Your task to perform on an android device: install app "Truecaller" Image 0: 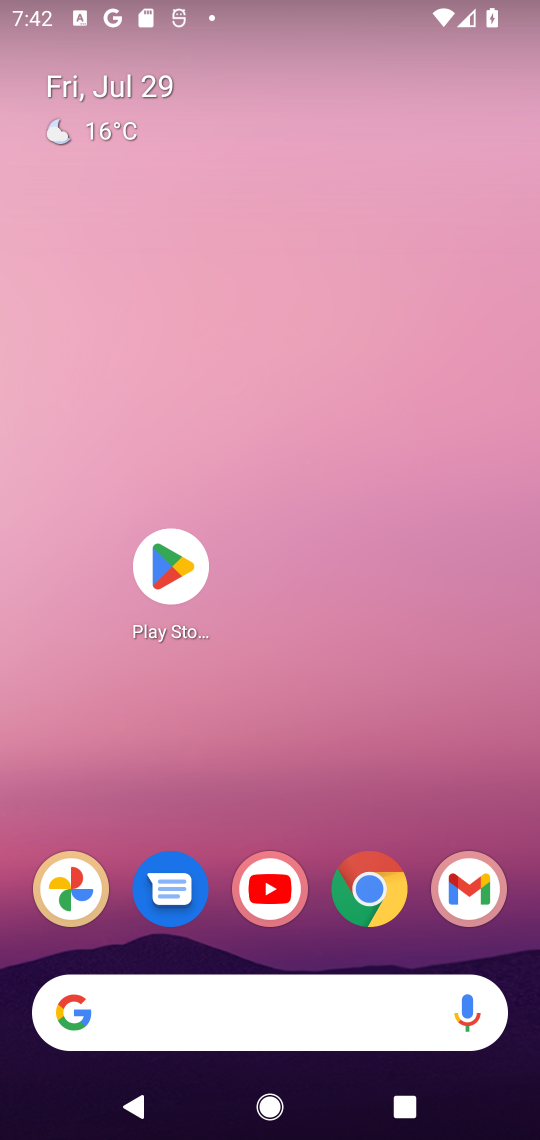
Step 0: press home button
Your task to perform on an android device: install app "Truecaller" Image 1: 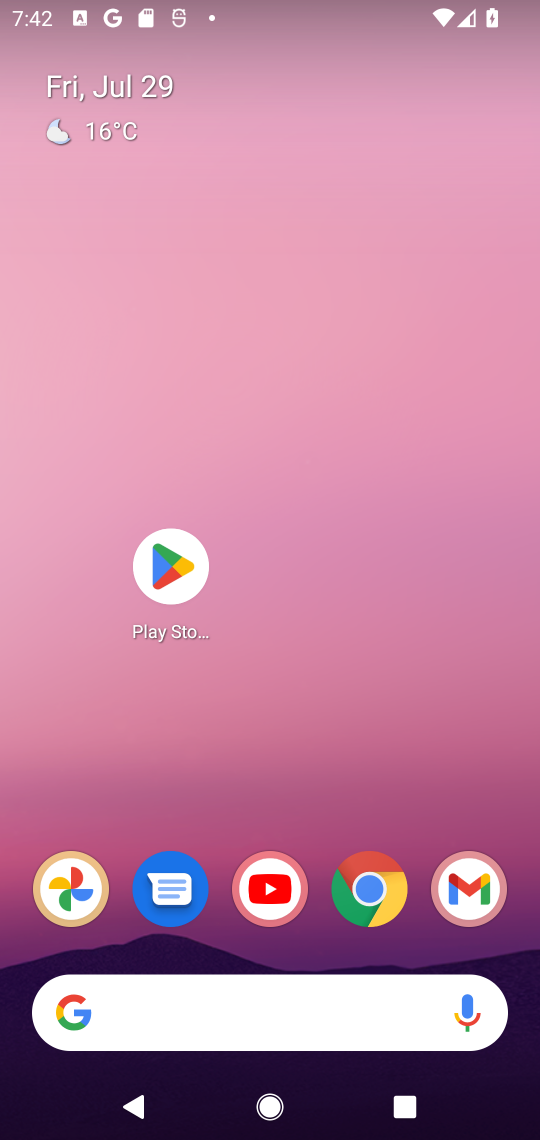
Step 1: click (178, 573)
Your task to perform on an android device: install app "Truecaller" Image 2: 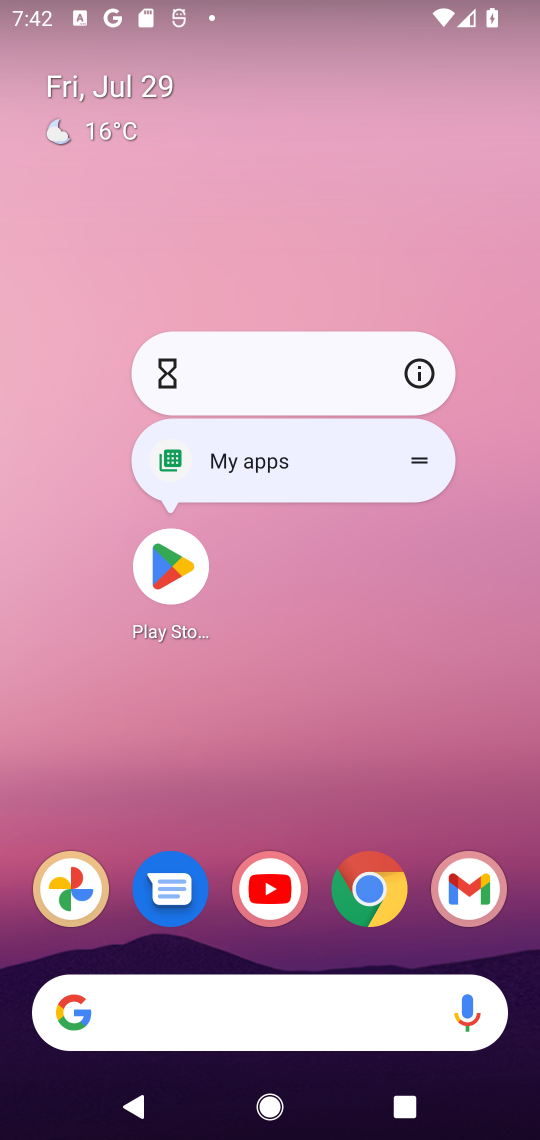
Step 2: click (178, 572)
Your task to perform on an android device: install app "Truecaller" Image 3: 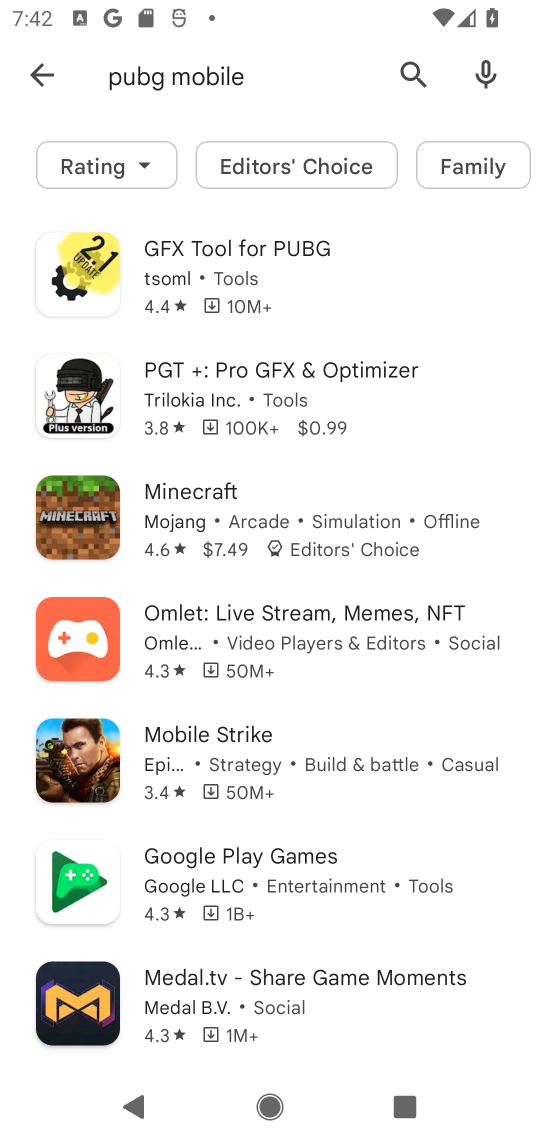
Step 3: click (401, 60)
Your task to perform on an android device: install app "Truecaller" Image 4: 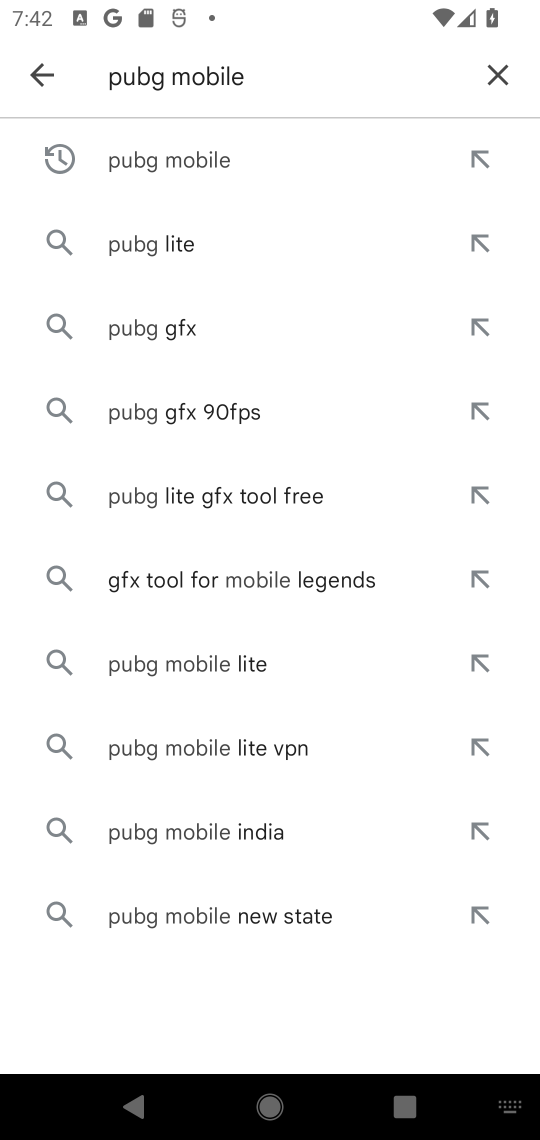
Step 4: click (499, 76)
Your task to perform on an android device: install app "Truecaller" Image 5: 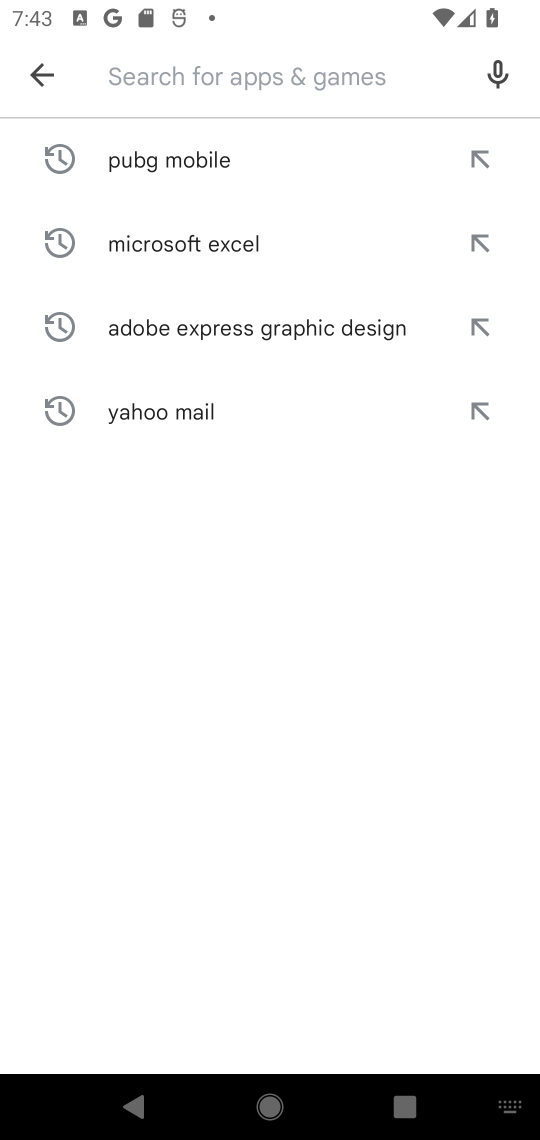
Step 5: type "Truecaller"
Your task to perform on an android device: install app "Truecaller" Image 6: 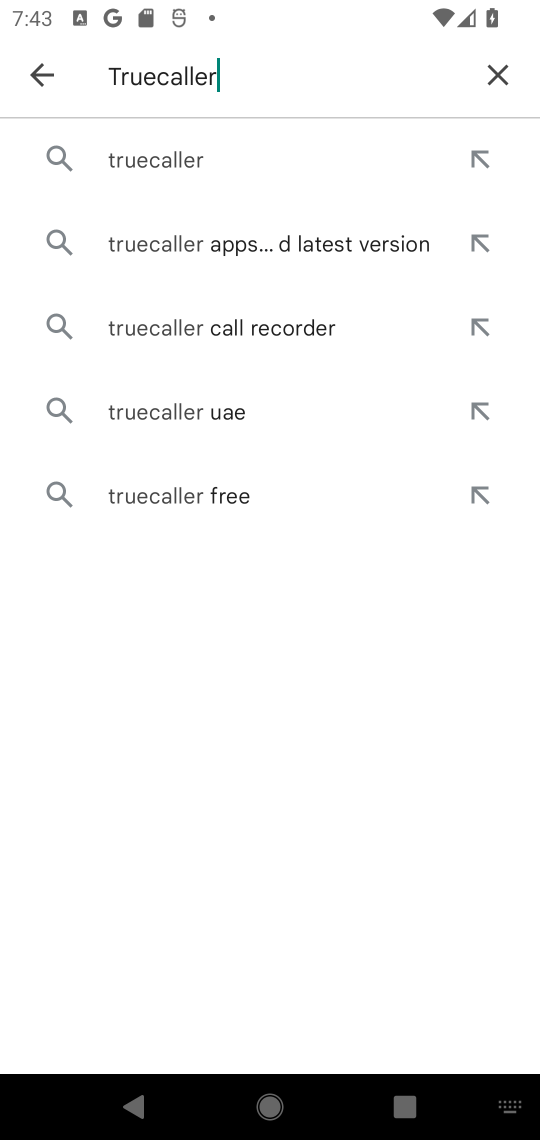
Step 6: click (181, 151)
Your task to perform on an android device: install app "Truecaller" Image 7: 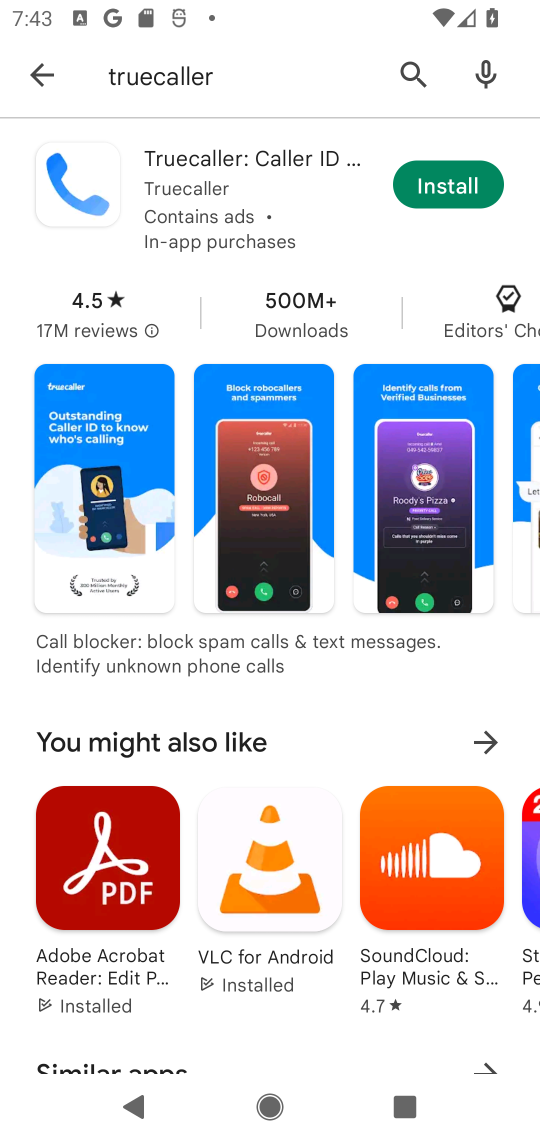
Step 7: click (448, 183)
Your task to perform on an android device: install app "Truecaller" Image 8: 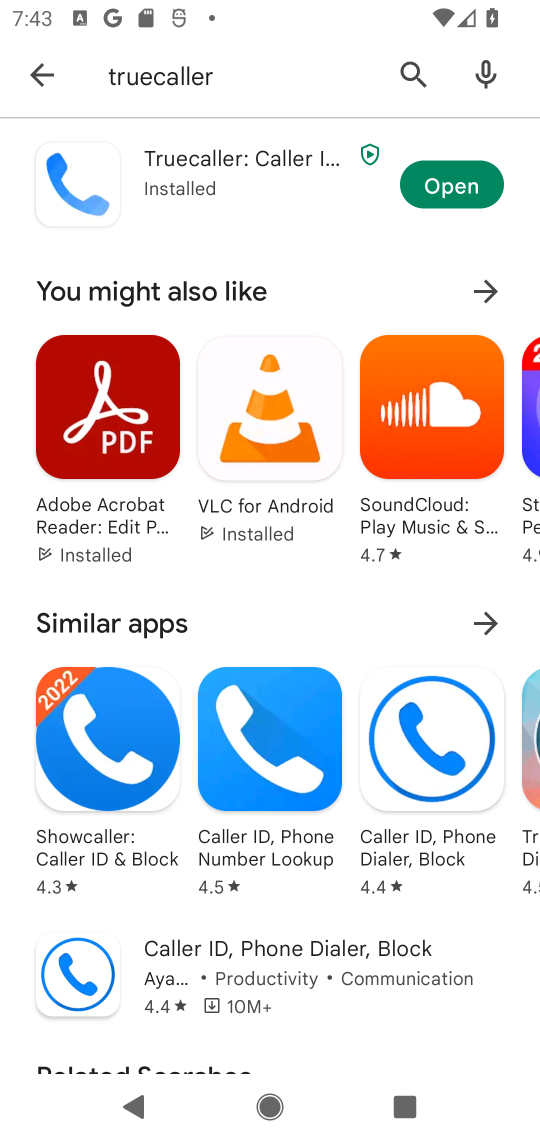
Step 8: task complete